Your task to perform on an android device: Open calendar and show me the third week of next month Image 0: 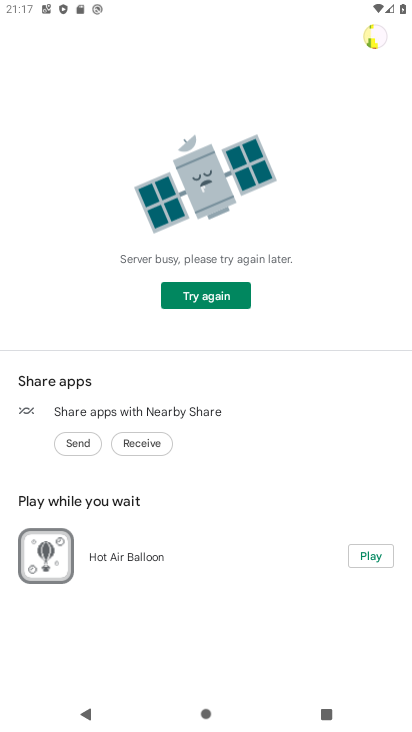
Step 0: press home button
Your task to perform on an android device: Open calendar and show me the third week of next month Image 1: 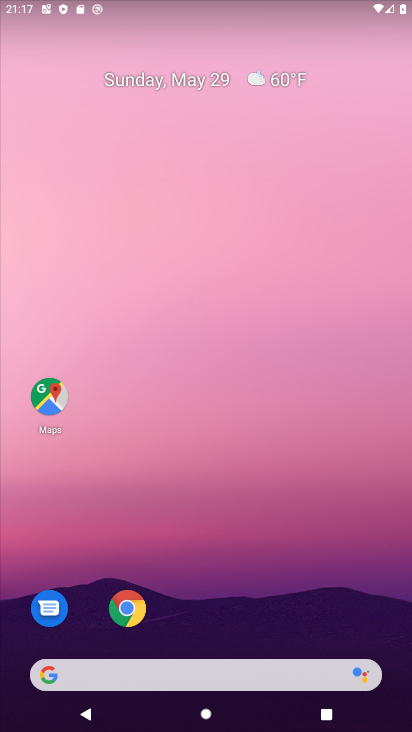
Step 1: drag from (365, 621) to (356, 216)
Your task to perform on an android device: Open calendar and show me the third week of next month Image 2: 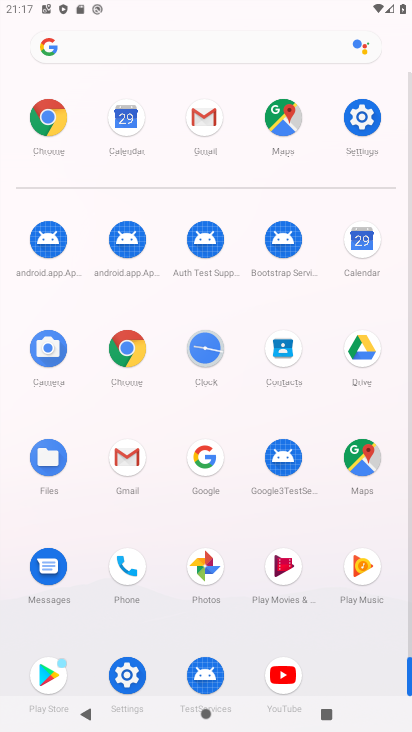
Step 2: click (361, 240)
Your task to perform on an android device: Open calendar and show me the third week of next month Image 3: 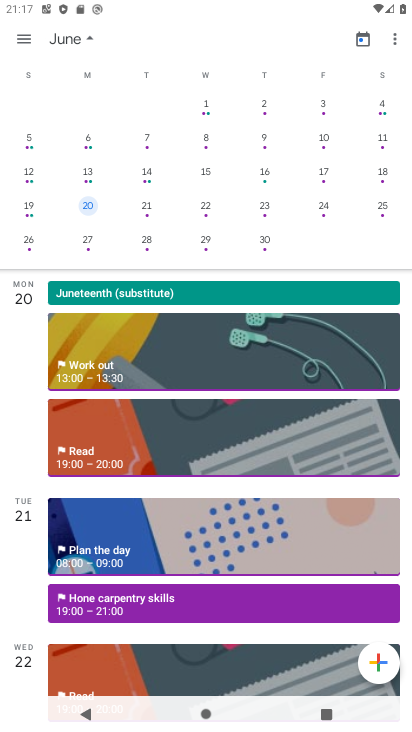
Step 3: click (82, 173)
Your task to perform on an android device: Open calendar and show me the third week of next month Image 4: 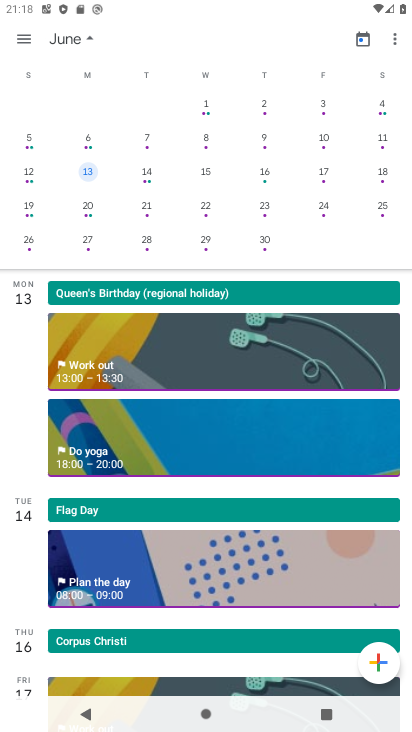
Step 4: task complete